Your task to perform on an android device: Go to Reddit.com Image 0: 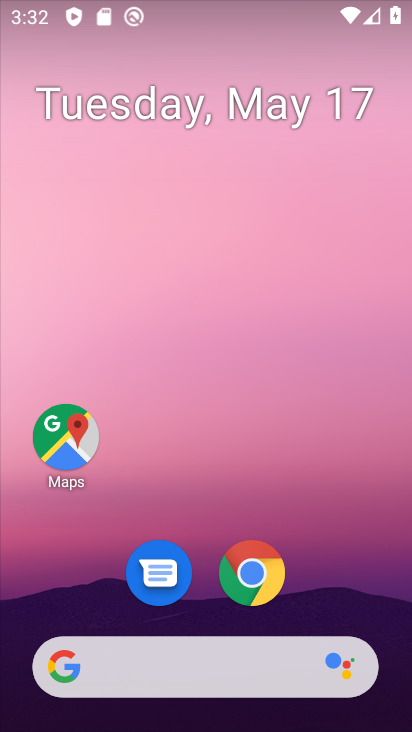
Step 0: click (257, 580)
Your task to perform on an android device: Go to Reddit.com Image 1: 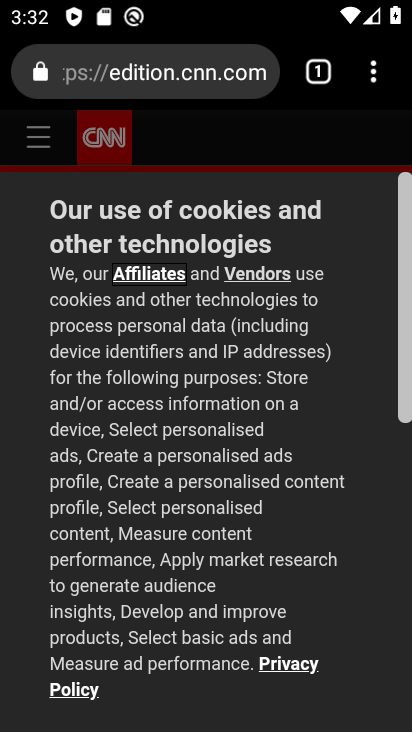
Step 1: click (202, 85)
Your task to perform on an android device: Go to Reddit.com Image 2: 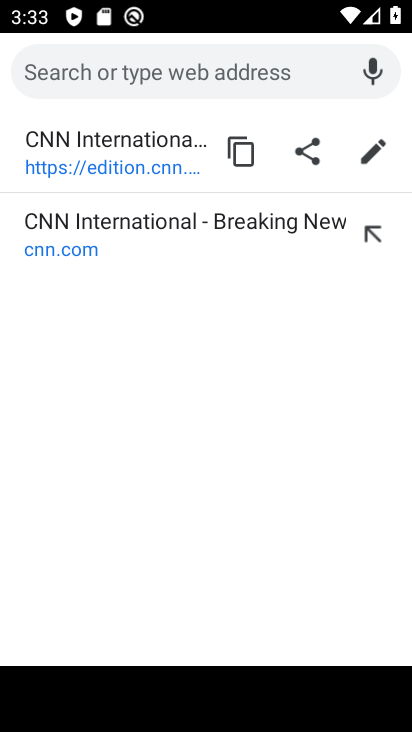
Step 2: type "Reddit.com"
Your task to perform on an android device: Go to Reddit.com Image 3: 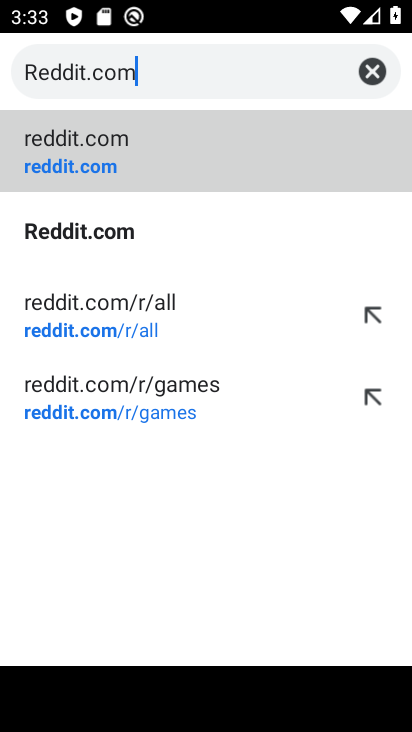
Step 3: click (102, 169)
Your task to perform on an android device: Go to Reddit.com Image 4: 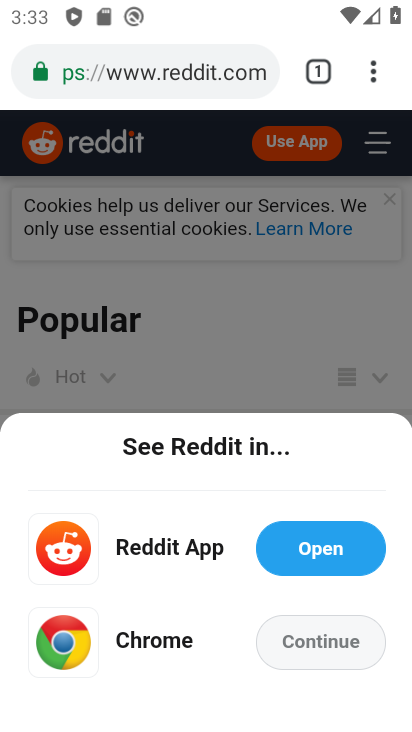
Step 4: click (307, 639)
Your task to perform on an android device: Go to Reddit.com Image 5: 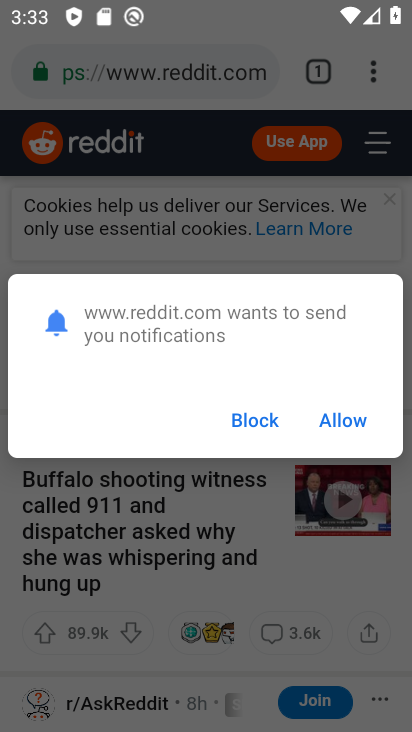
Step 5: click (263, 429)
Your task to perform on an android device: Go to Reddit.com Image 6: 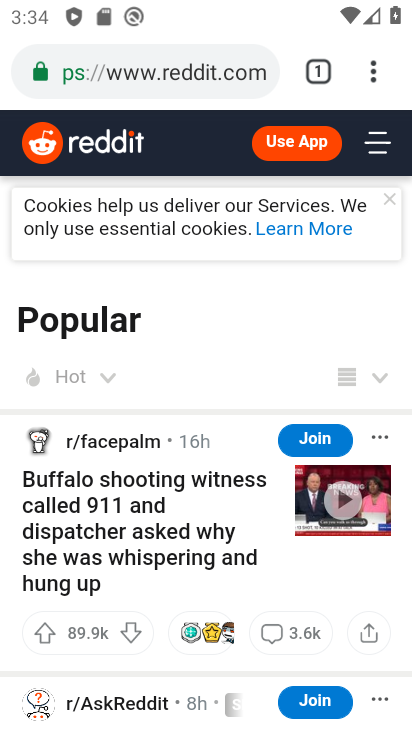
Step 6: task complete